Your task to perform on an android device: turn off translation in the chrome app Image 0: 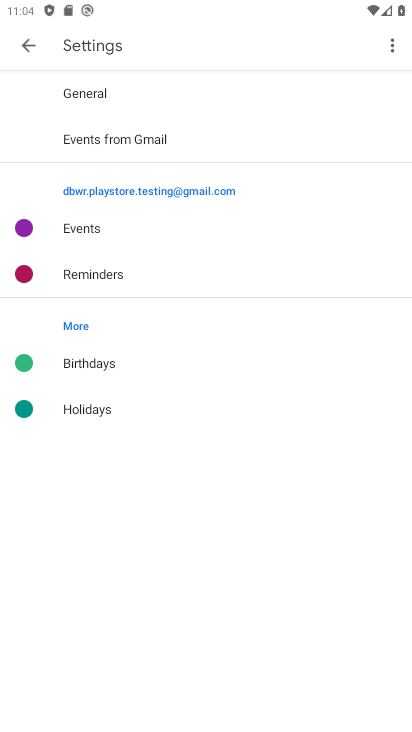
Step 0: press home button
Your task to perform on an android device: turn off translation in the chrome app Image 1: 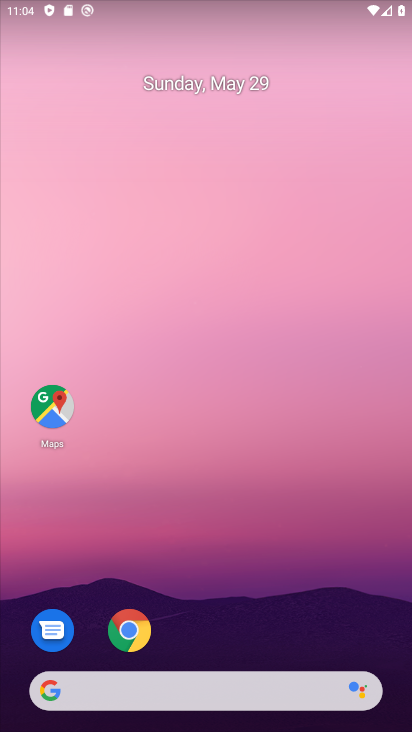
Step 1: click (133, 632)
Your task to perform on an android device: turn off translation in the chrome app Image 2: 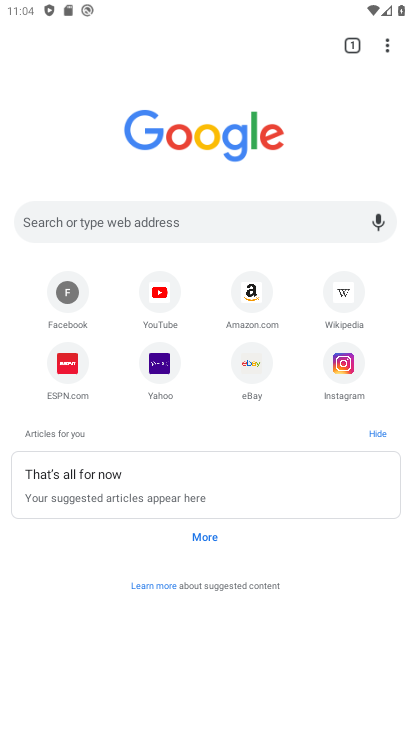
Step 2: click (388, 38)
Your task to perform on an android device: turn off translation in the chrome app Image 3: 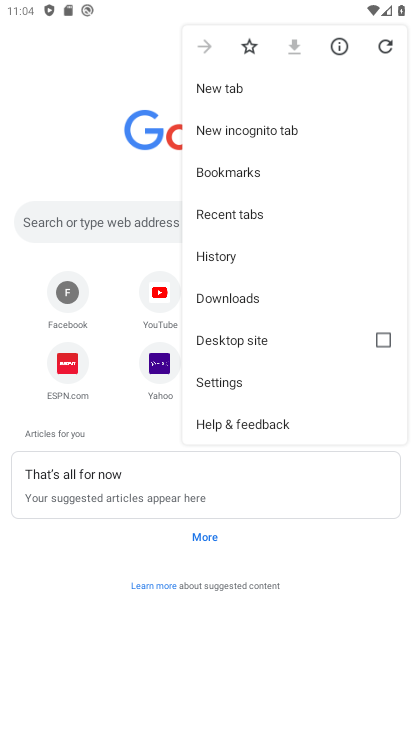
Step 3: click (240, 381)
Your task to perform on an android device: turn off translation in the chrome app Image 4: 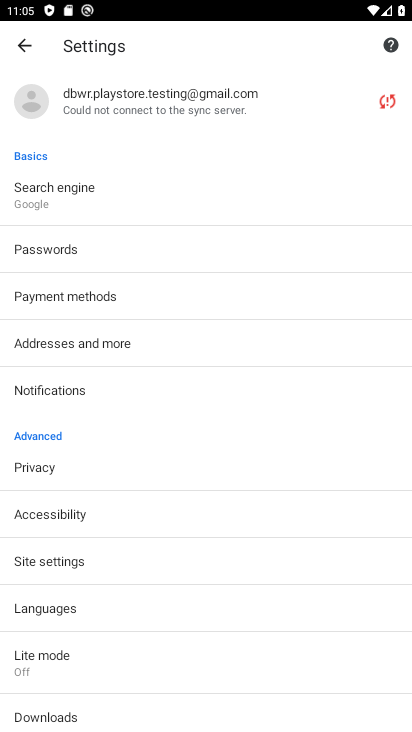
Step 4: click (59, 619)
Your task to perform on an android device: turn off translation in the chrome app Image 5: 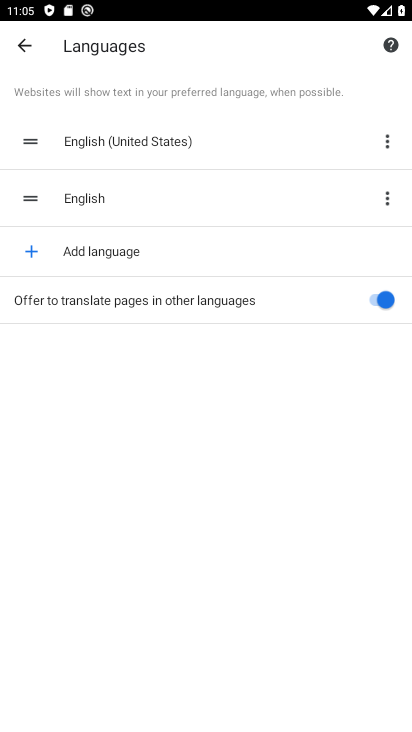
Step 5: click (378, 296)
Your task to perform on an android device: turn off translation in the chrome app Image 6: 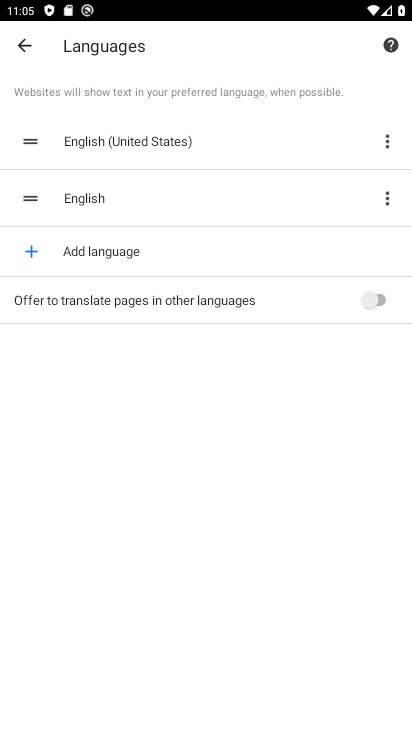
Step 6: task complete